Your task to perform on an android device: Open Google Chrome and open the bookmarks view Image 0: 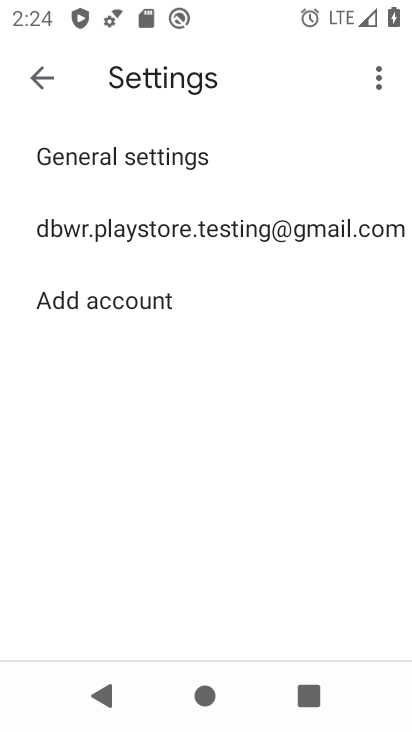
Step 0: press home button
Your task to perform on an android device: Open Google Chrome and open the bookmarks view Image 1: 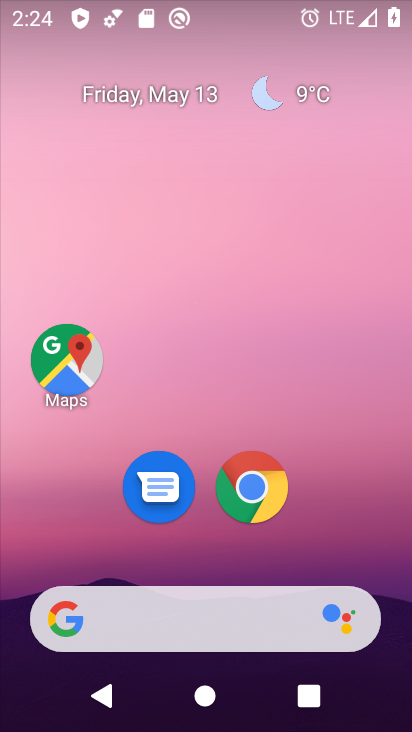
Step 1: click (251, 490)
Your task to perform on an android device: Open Google Chrome and open the bookmarks view Image 2: 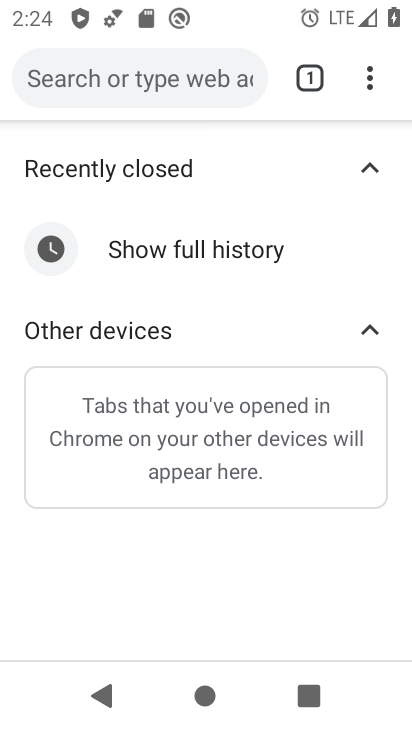
Step 2: click (364, 76)
Your task to perform on an android device: Open Google Chrome and open the bookmarks view Image 3: 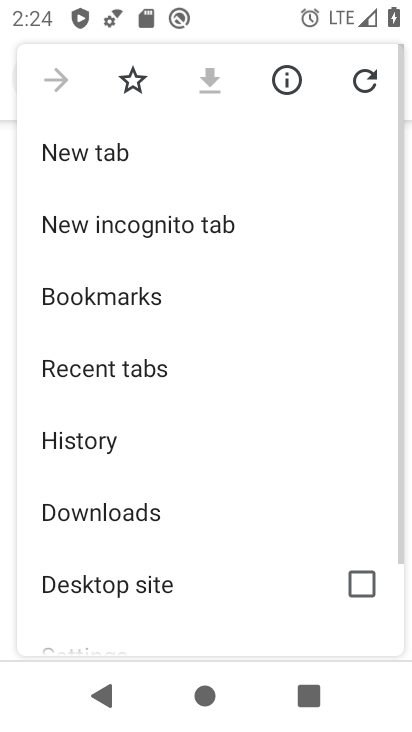
Step 3: click (192, 306)
Your task to perform on an android device: Open Google Chrome and open the bookmarks view Image 4: 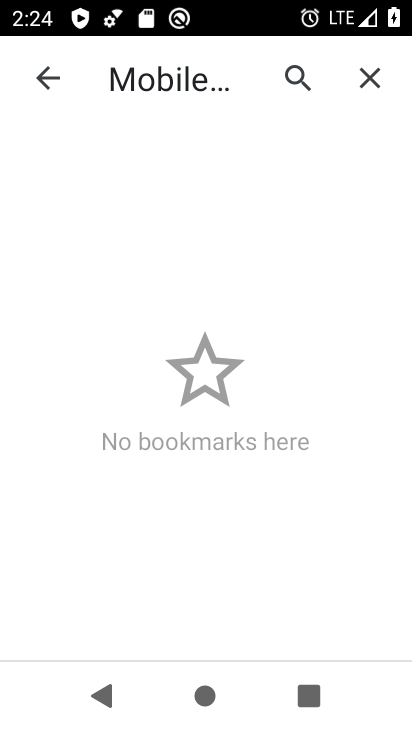
Step 4: task complete